Your task to perform on an android device: move a message to another label in the gmail app Image 0: 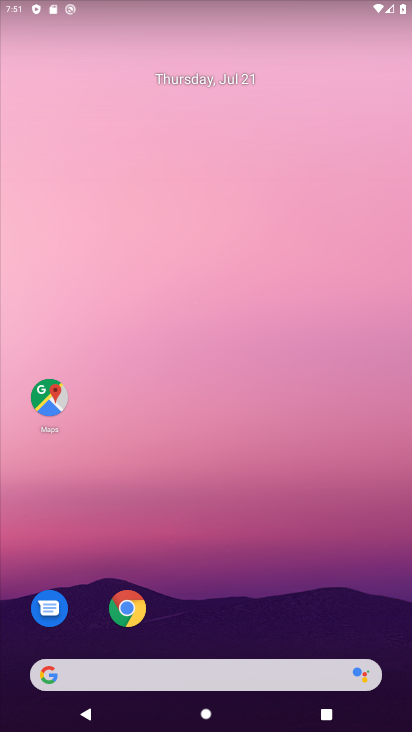
Step 0: press home button
Your task to perform on an android device: move a message to another label in the gmail app Image 1: 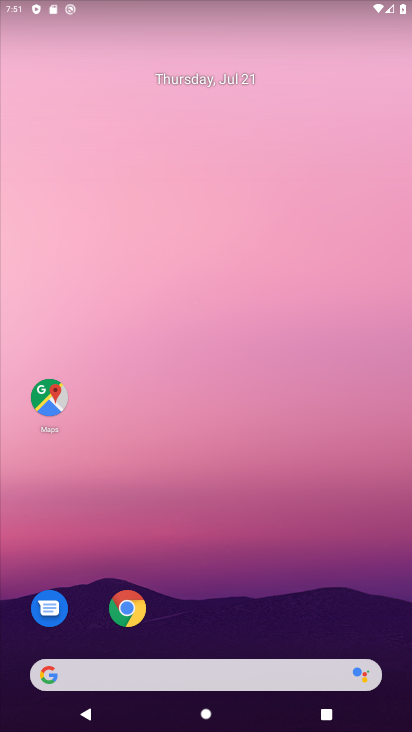
Step 1: drag from (252, 635) to (283, 11)
Your task to perform on an android device: move a message to another label in the gmail app Image 2: 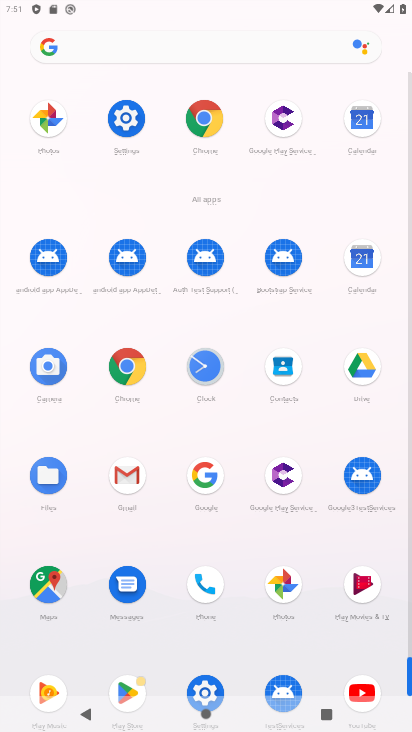
Step 2: click (119, 468)
Your task to perform on an android device: move a message to another label in the gmail app Image 3: 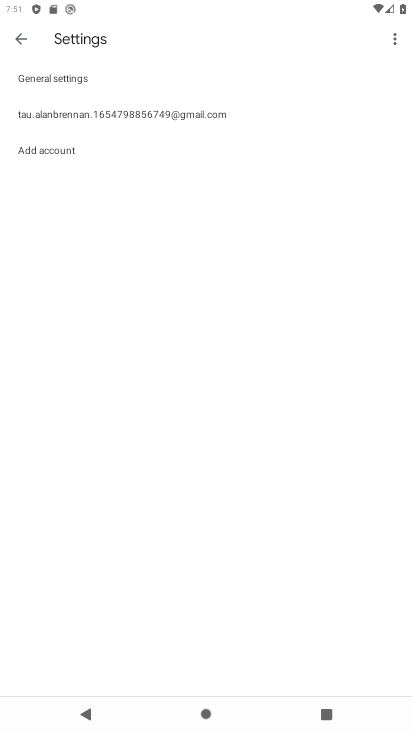
Step 3: click (12, 44)
Your task to perform on an android device: move a message to another label in the gmail app Image 4: 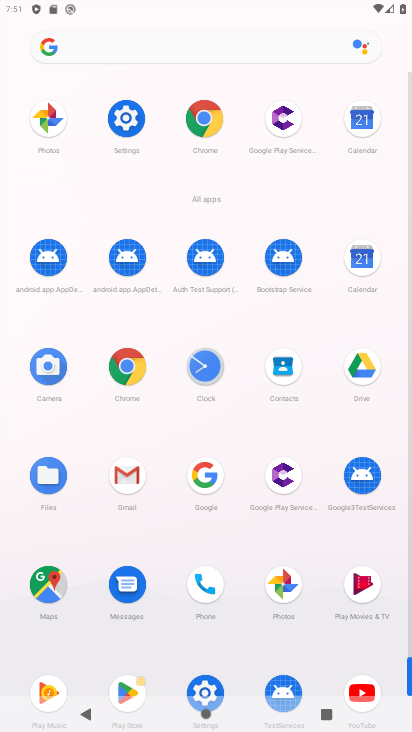
Step 4: click (125, 469)
Your task to perform on an android device: move a message to another label in the gmail app Image 5: 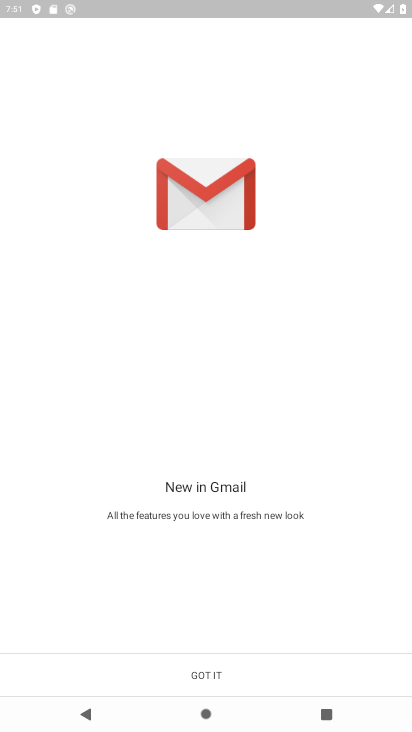
Step 5: click (204, 668)
Your task to perform on an android device: move a message to another label in the gmail app Image 6: 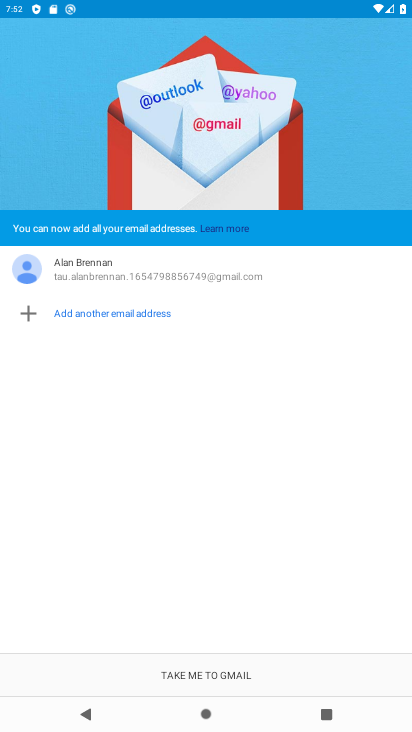
Step 6: click (206, 663)
Your task to perform on an android device: move a message to another label in the gmail app Image 7: 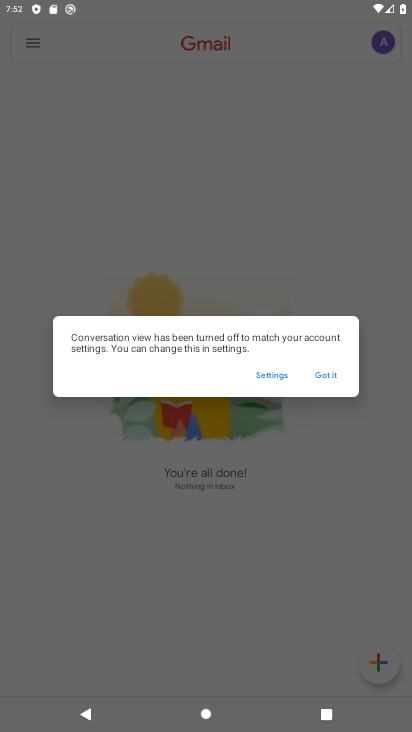
Step 7: click (327, 371)
Your task to perform on an android device: move a message to another label in the gmail app Image 8: 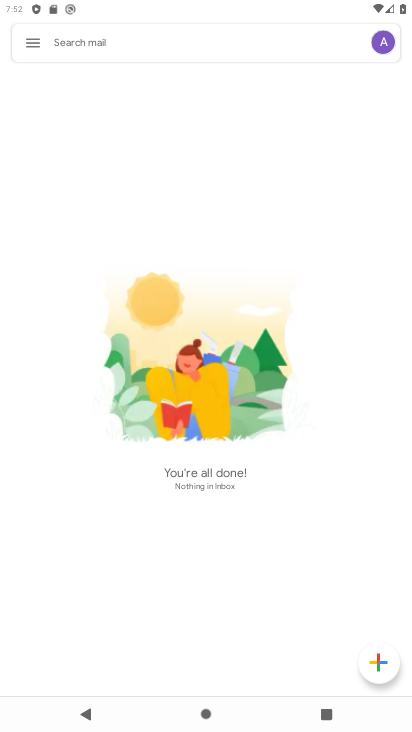
Step 8: task complete